Your task to perform on an android device: Search for vegetarian restaurants on Maps Image 0: 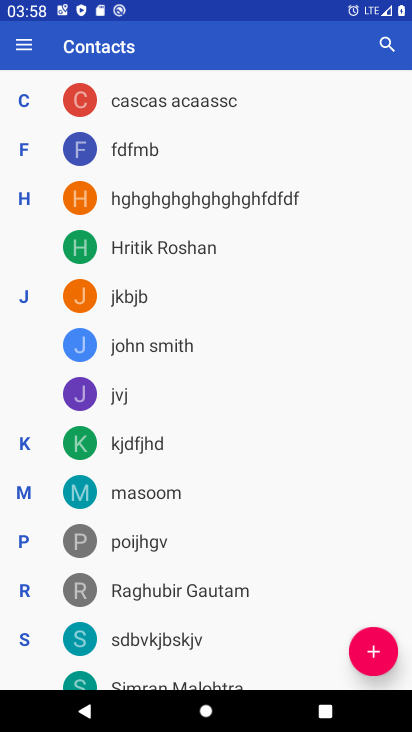
Step 0: press home button
Your task to perform on an android device: Search for vegetarian restaurants on Maps Image 1: 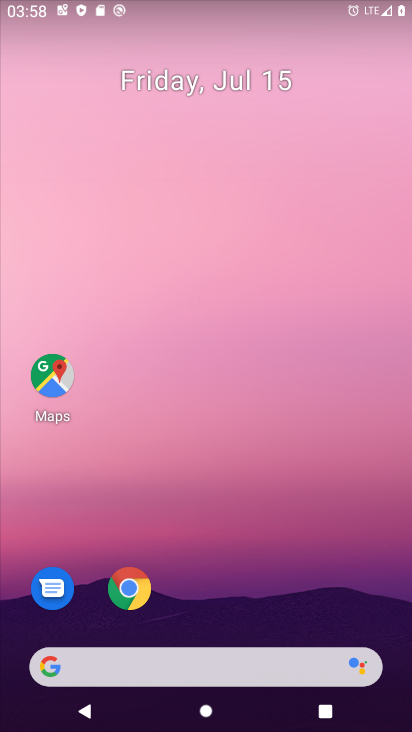
Step 1: click (46, 373)
Your task to perform on an android device: Search for vegetarian restaurants on Maps Image 2: 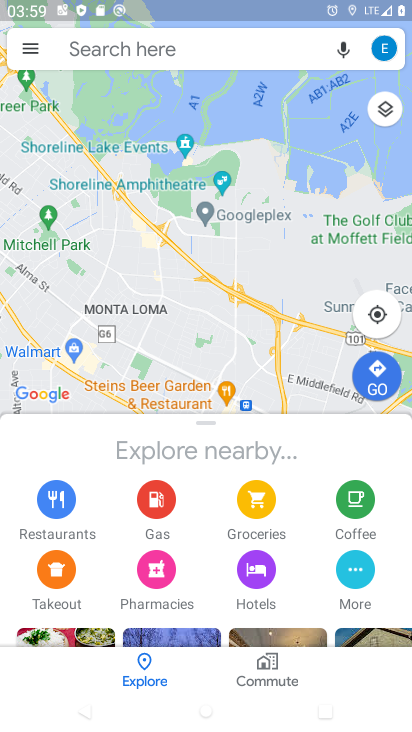
Step 2: click (200, 54)
Your task to perform on an android device: Search for vegetarian restaurants on Maps Image 3: 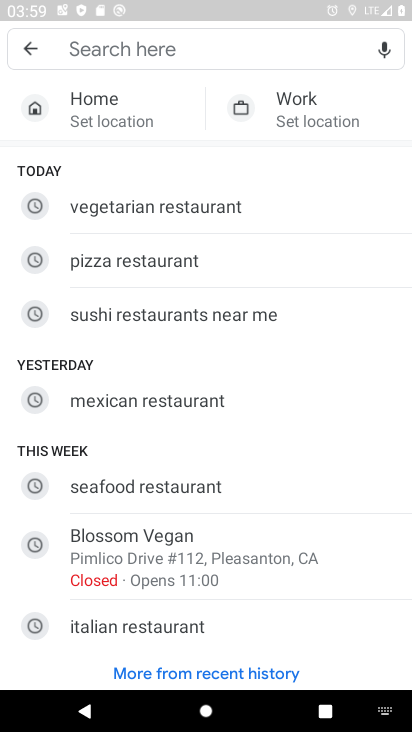
Step 3: type "vegetarian restaurants"
Your task to perform on an android device: Search for vegetarian restaurants on Maps Image 4: 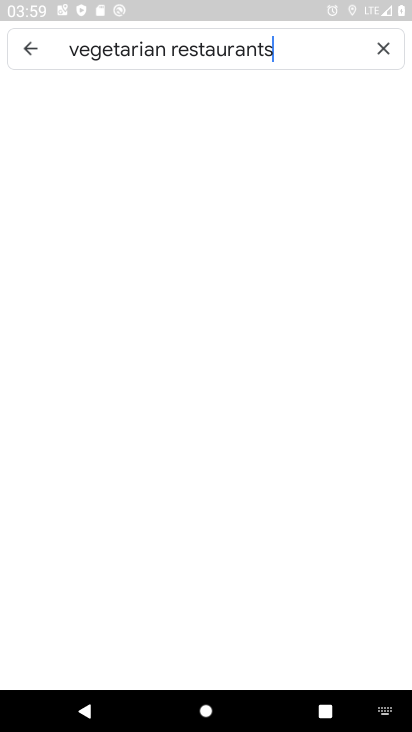
Step 4: type ""
Your task to perform on an android device: Search for vegetarian restaurants on Maps Image 5: 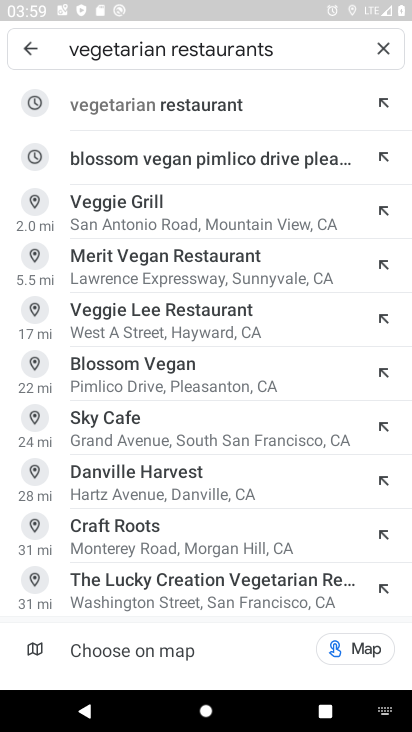
Step 5: click (188, 110)
Your task to perform on an android device: Search for vegetarian restaurants on Maps Image 6: 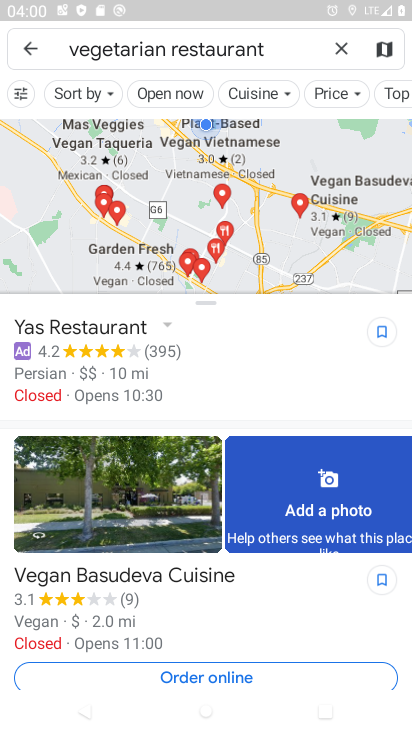
Step 6: task complete